Your task to perform on an android device: see sites visited before in the chrome app Image 0: 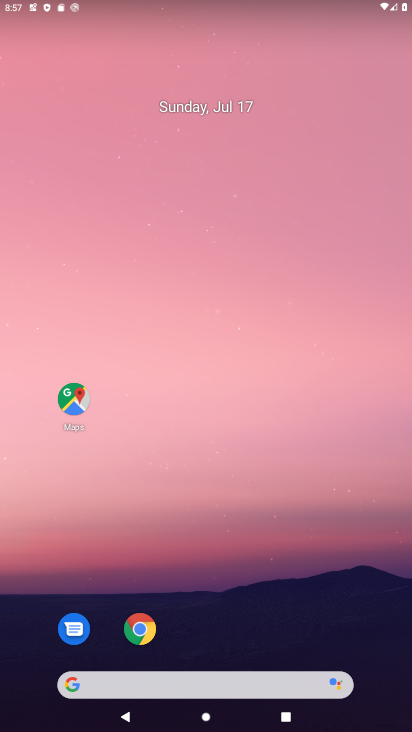
Step 0: click (136, 625)
Your task to perform on an android device: see sites visited before in the chrome app Image 1: 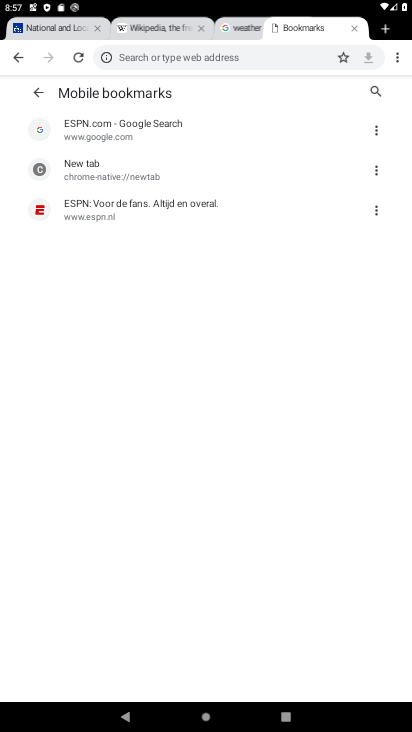
Step 1: click (398, 60)
Your task to perform on an android device: see sites visited before in the chrome app Image 2: 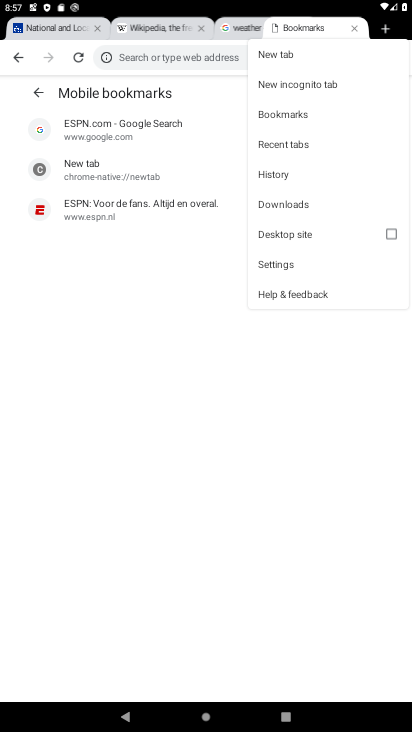
Step 2: click (268, 173)
Your task to perform on an android device: see sites visited before in the chrome app Image 3: 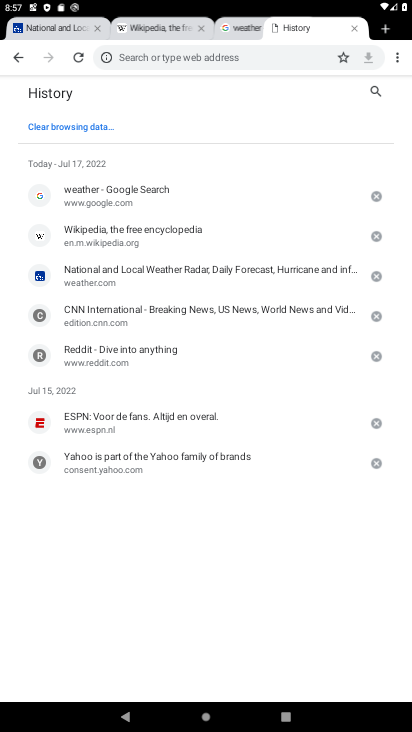
Step 3: task complete